Your task to perform on an android device: Open Android settings Image 0: 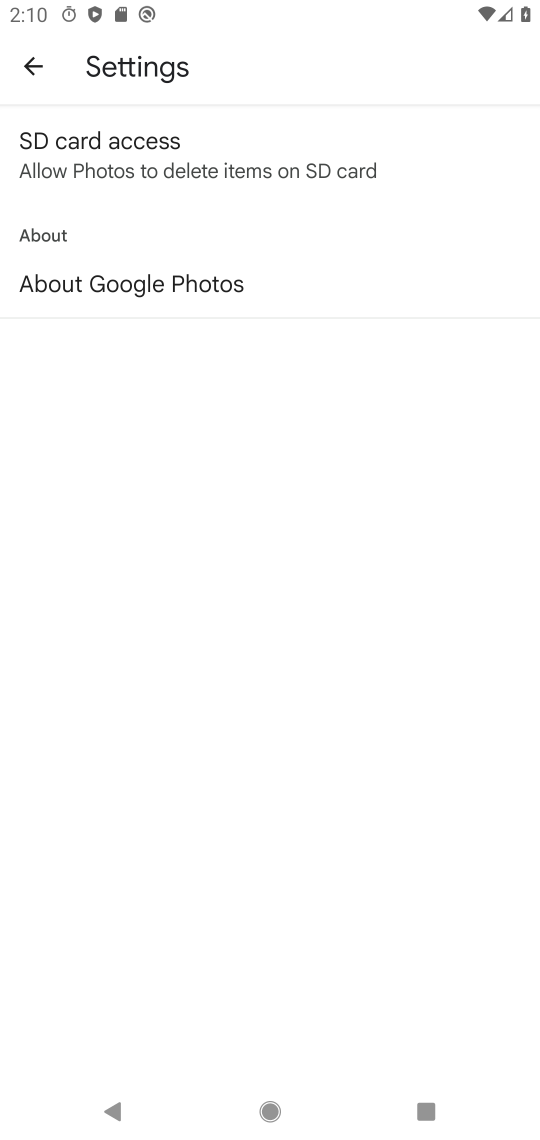
Step 0: press home button
Your task to perform on an android device: Open Android settings Image 1: 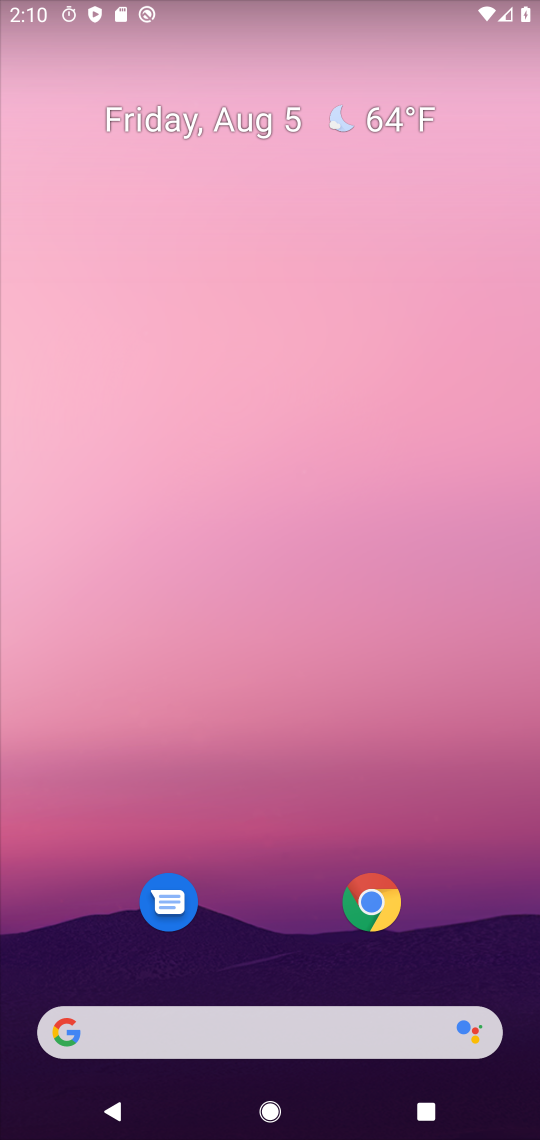
Step 1: drag from (259, 1074) to (113, 210)
Your task to perform on an android device: Open Android settings Image 2: 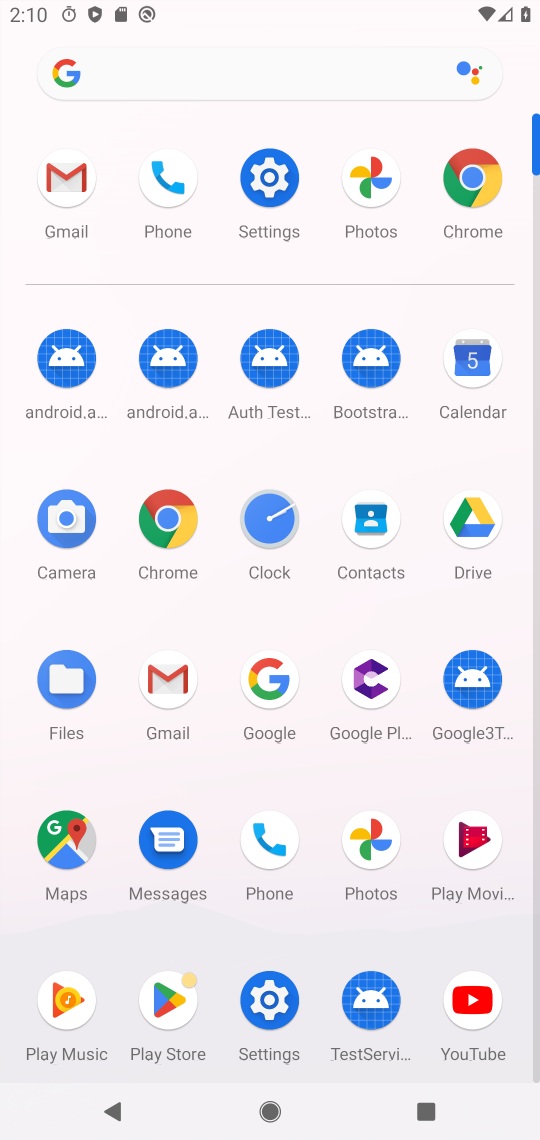
Step 2: click (282, 197)
Your task to perform on an android device: Open Android settings Image 3: 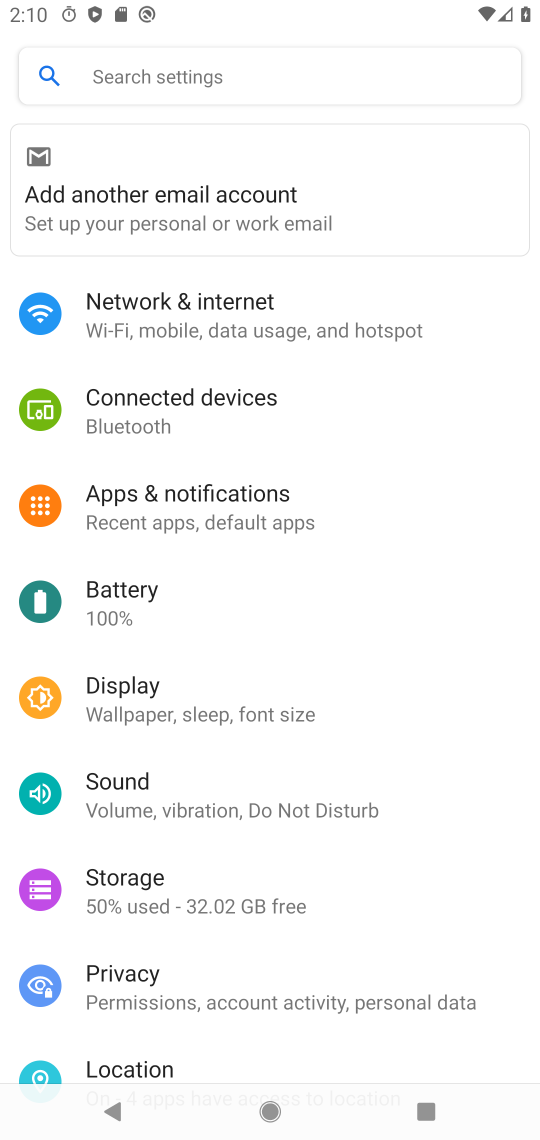
Step 3: click (158, 91)
Your task to perform on an android device: Open Android settings Image 4: 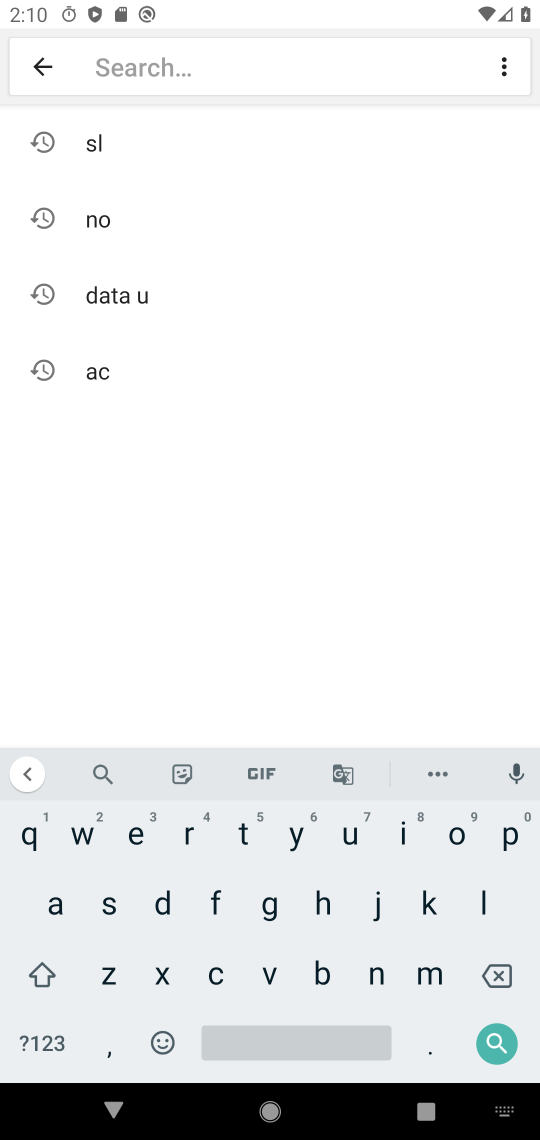
Step 4: click (47, 899)
Your task to perform on an android device: Open Android settings Image 5: 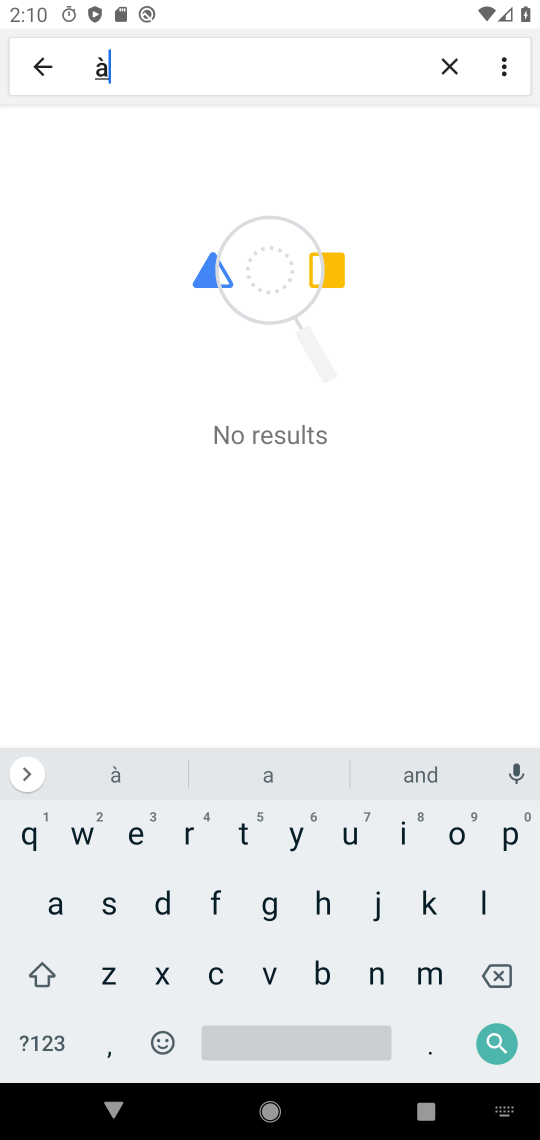
Step 5: click (491, 965)
Your task to perform on an android device: Open Android settings Image 6: 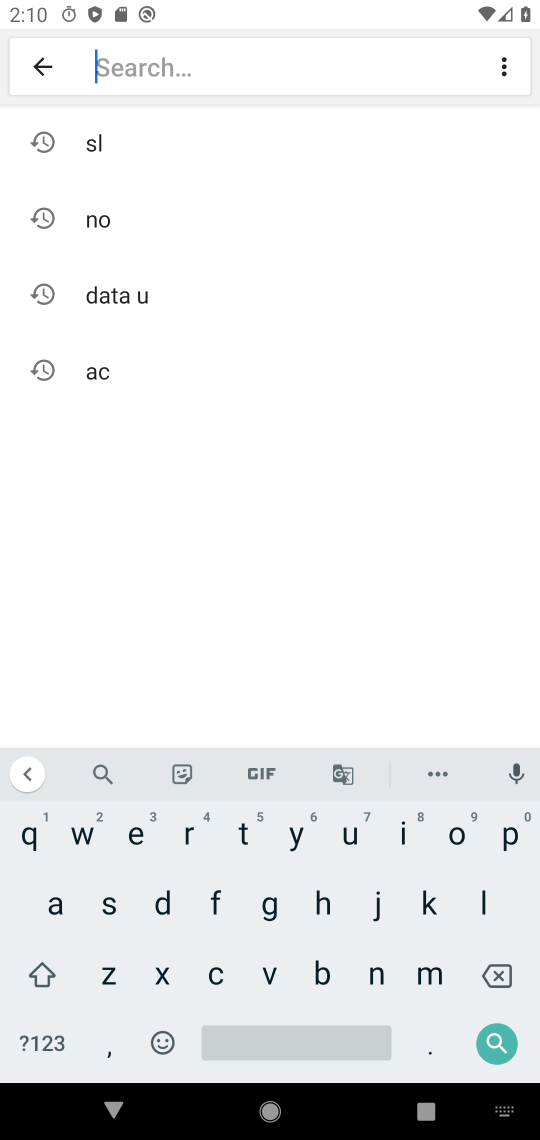
Step 6: click (46, 899)
Your task to perform on an android device: Open Android settings Image 7: 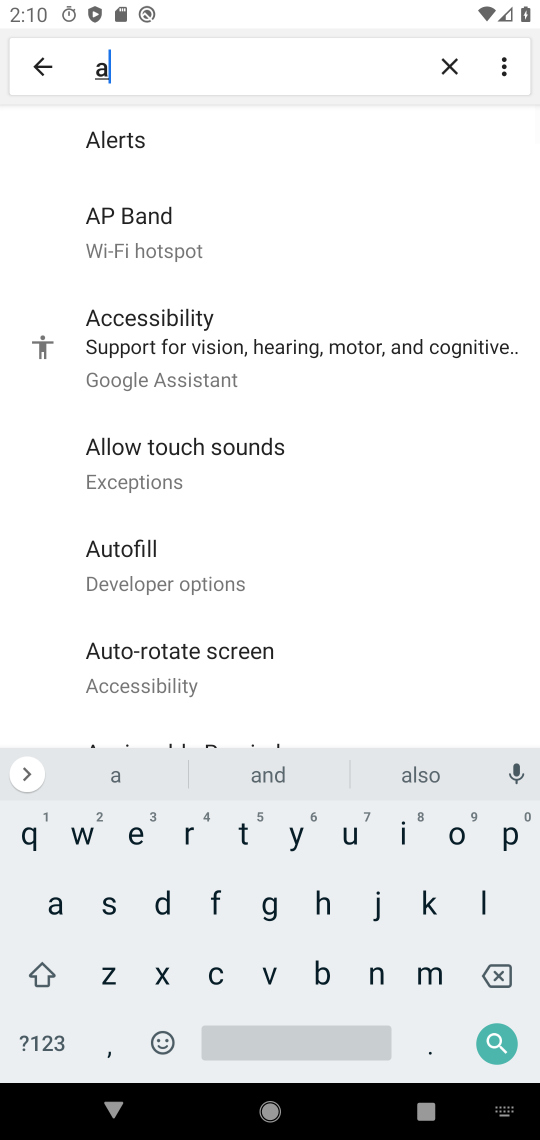
Step 7: click (368, 968)
Your task to perform on an android device: Open Android settings Image 8: 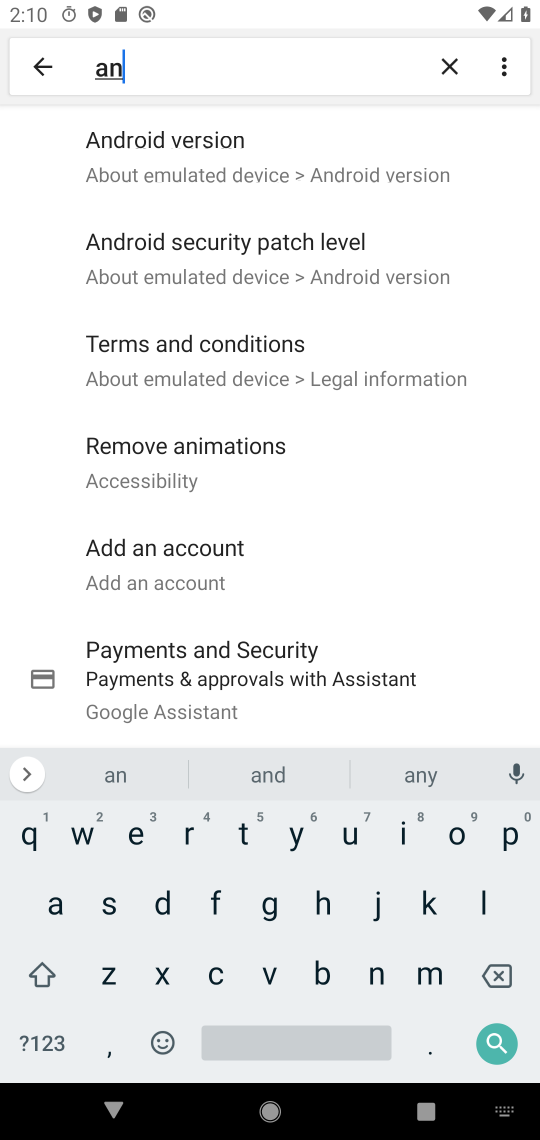
Step 8: click (250, 138)
Your task to perform on an android device: Open Android settings Image 9: 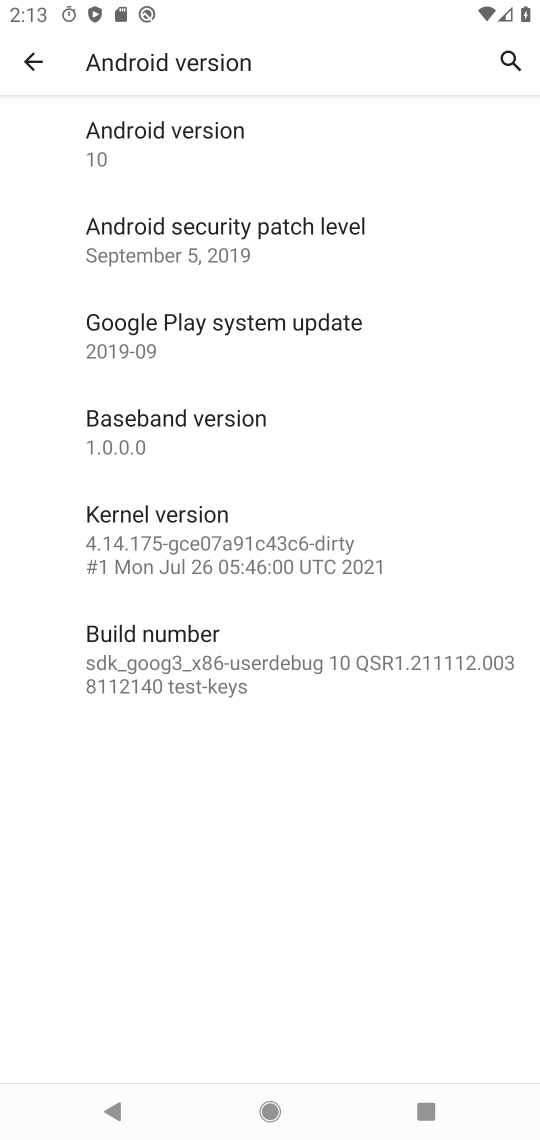
Step 9: task complete